Your task to perform on an android device: change keyboard looks Image 0: 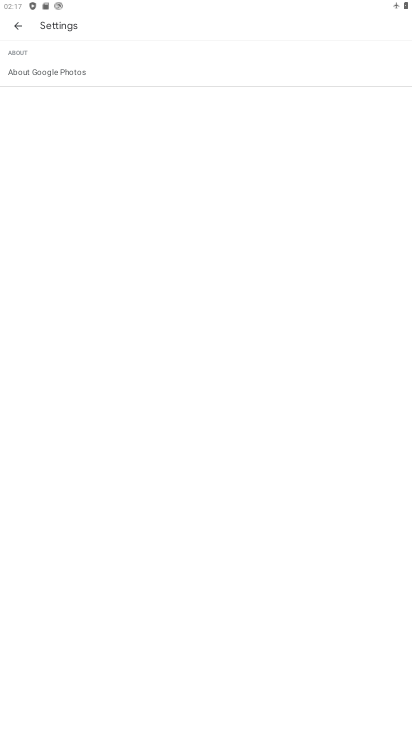
Step 0: press home button
Your task to perform on an android device: change keyboard looks Image 1: 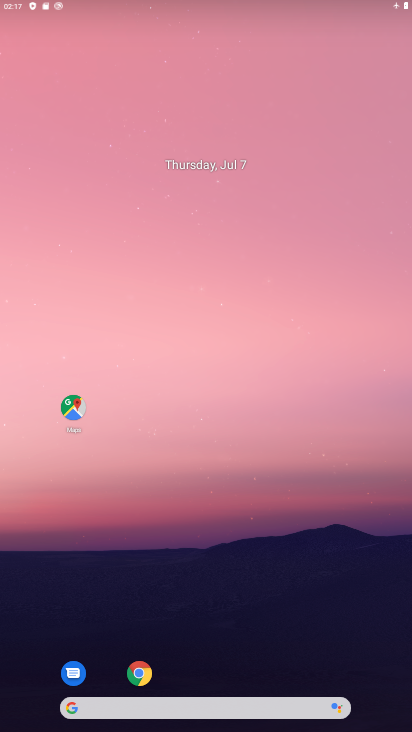
Step 1: drag from (229, 647) to (201, 147)
Your task to perform on an android device: change keyboard looks Image 2: 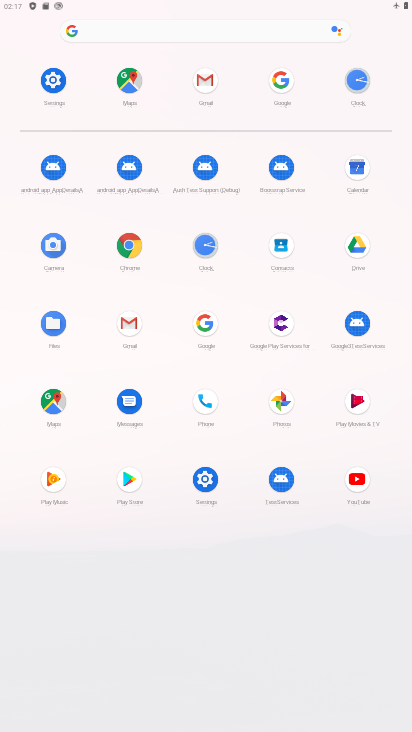
Step 2: click (62, 90)
Your task to perform on an android device: change keyboard looks Image 3: 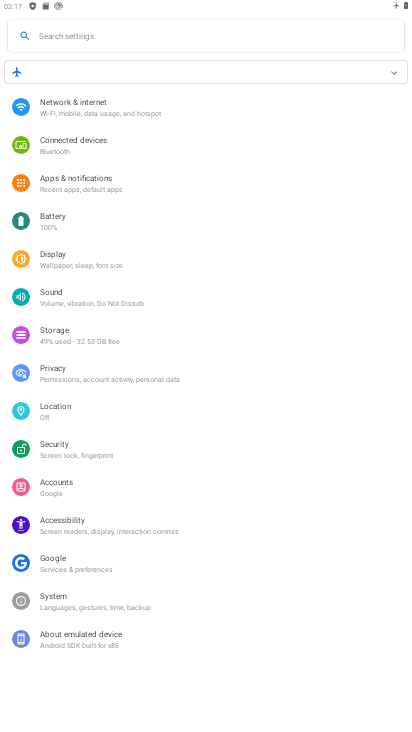
Step 3: click (70, 601)
Your task to perform on an android device: change keyboard looks Image 4: 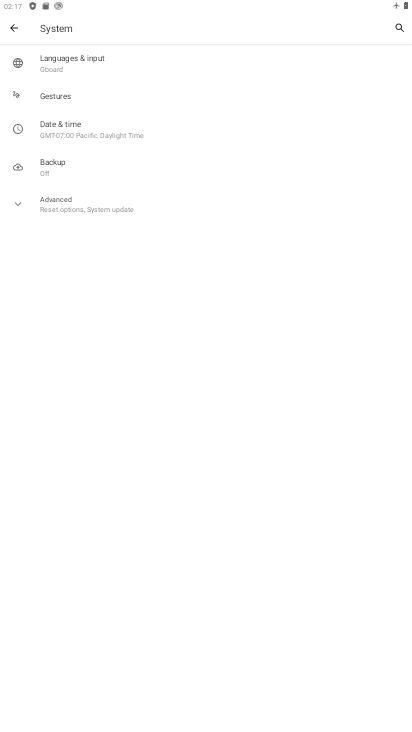
Step 4: click (98, 57)
Your task to perform on an android device: change keyboard looks Image 5: 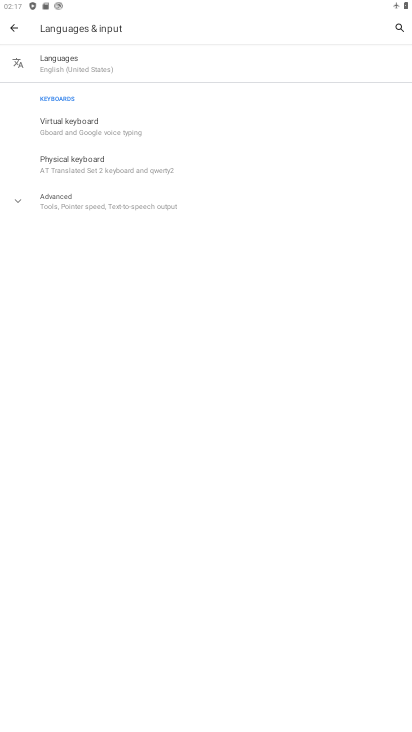
Step 5: click (79, 129)
Your task to perform on an android device: change keyboard looks Image 6: 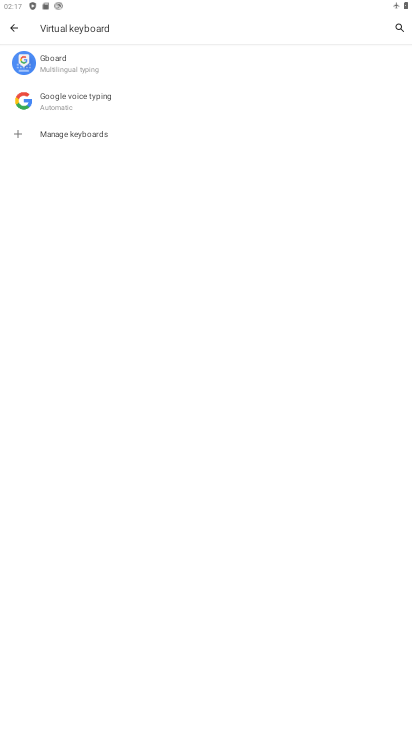
Step 6: click (75, 67)
Your task to perform on an android device: change keyboard looks Image 7: 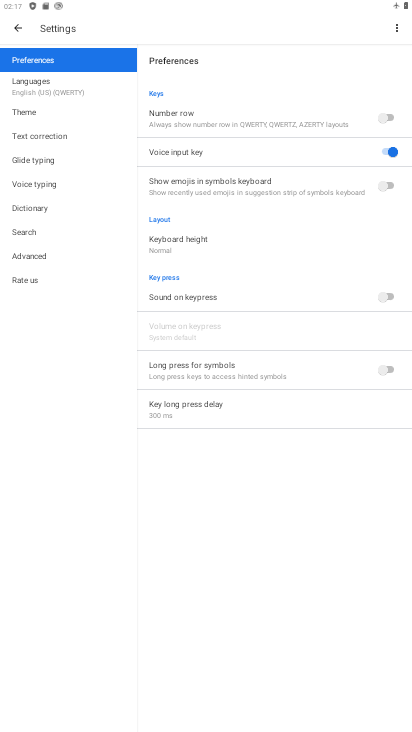
Step 7: click (48, 110)
Your task to perform on an android device: change keyboard looks Image 8: 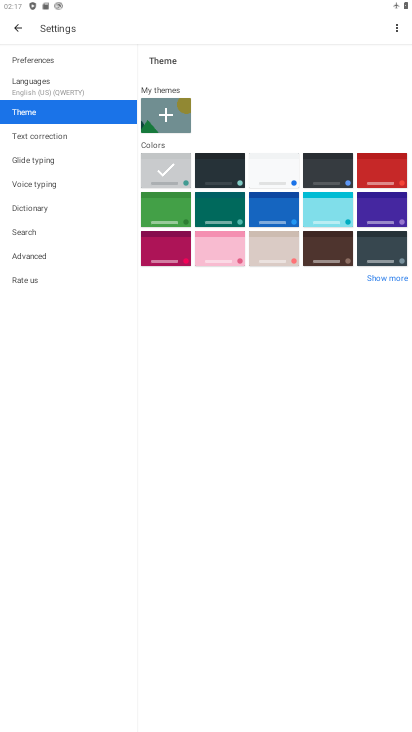
Step 8: click (213, 169)
Your task to perform on an android device: change keyboard looks Image 9: 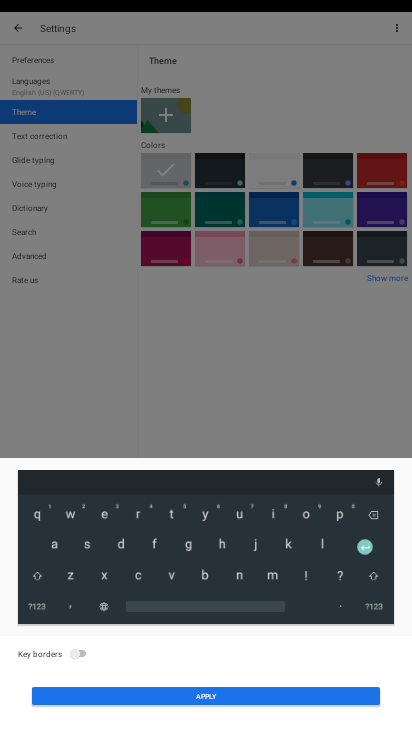
Step 9: click (259, 696)
Your task to perform on an android device: change keyboard looks Image 10: 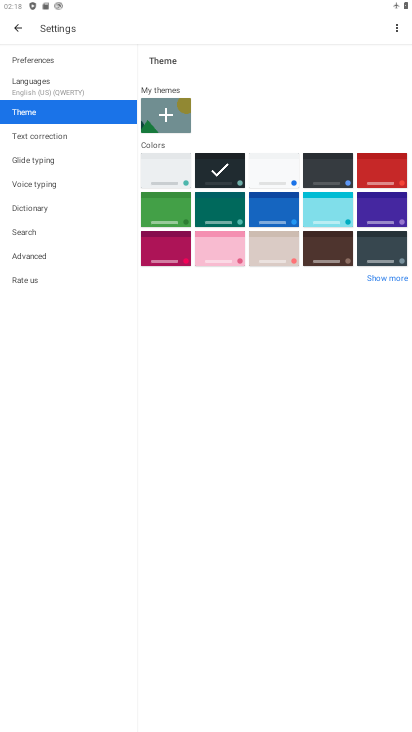
Step 10: task complete